Your task to perform on an android device: Go to calendar. Show me events next week Image 0: 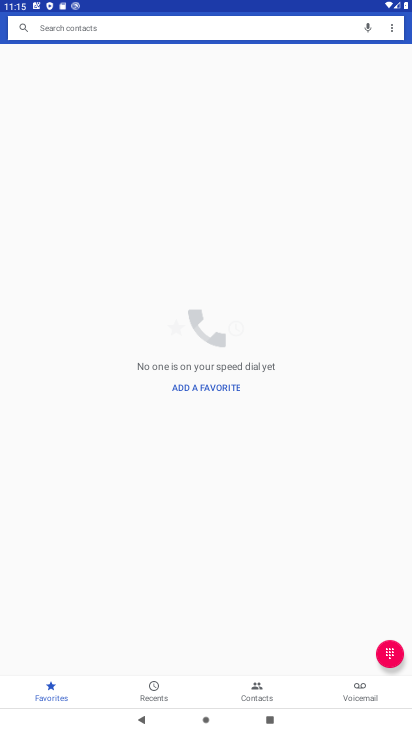
Step 0: press home button
Your task to perform on an android device: Go to calendar. Show me events next week Image 1: 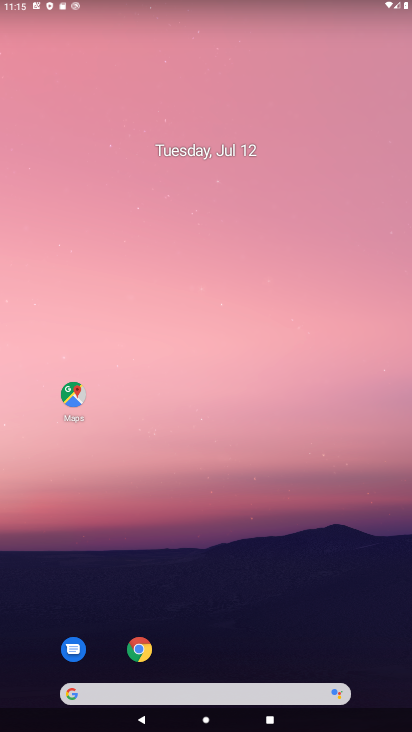
Step 1: drag from (309, 617) to (295, 118)
Your task to perform on an android device: Go to calendar. Show me events next week Image 2: 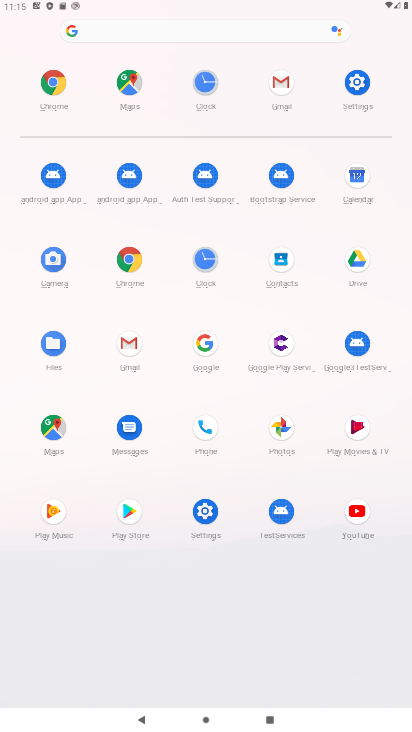
Step 2: click (356, 176)
Your task to perform on an android device: Go to calendar. Show me events next week Image 3: 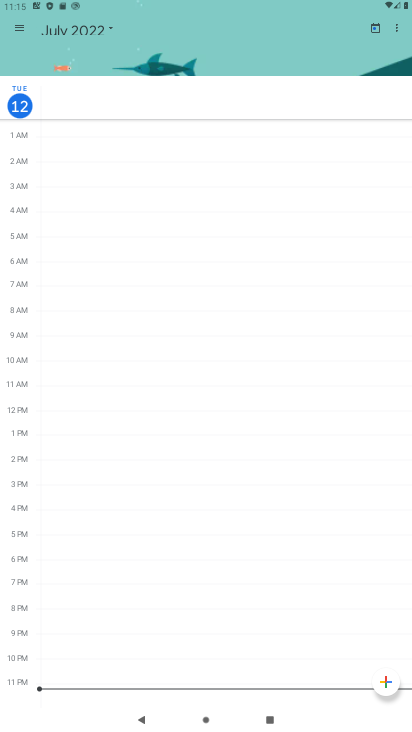
Step 3: click (17, 29)
Your task to perform on an android device: Go to calendar. Show me events next week Image 4: 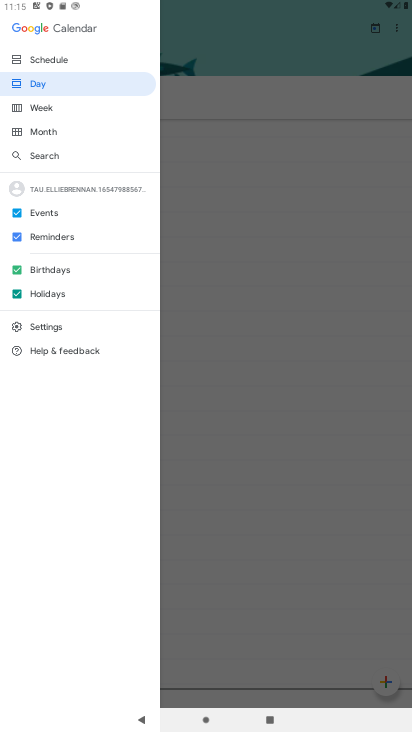
Step 4: click (32, 108)
Your task to perform on an android device: Go to calendar. Show me events next week Image 5: 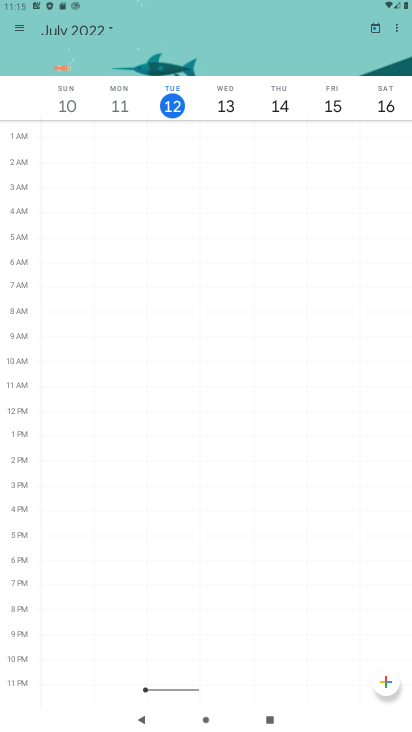
Step 5: click (104, 25)
Your task to perform on an android device: Go to calendar. Show me events next week Image 6: 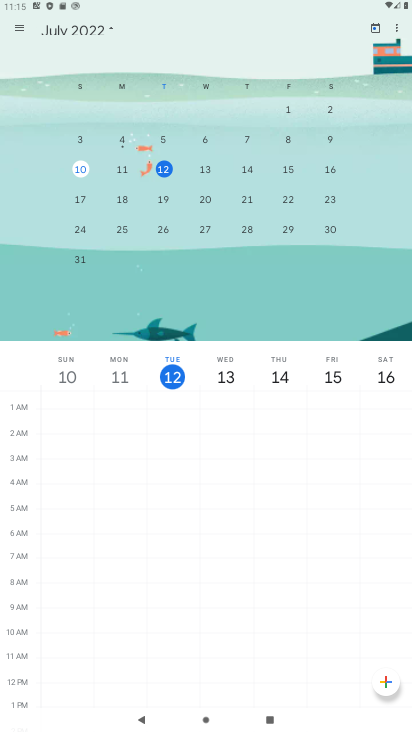
Step 6: drag from (336, 226) to (111, 198)
Your task to perform on an android device: Go to calendar. Show me events next week Image 7: 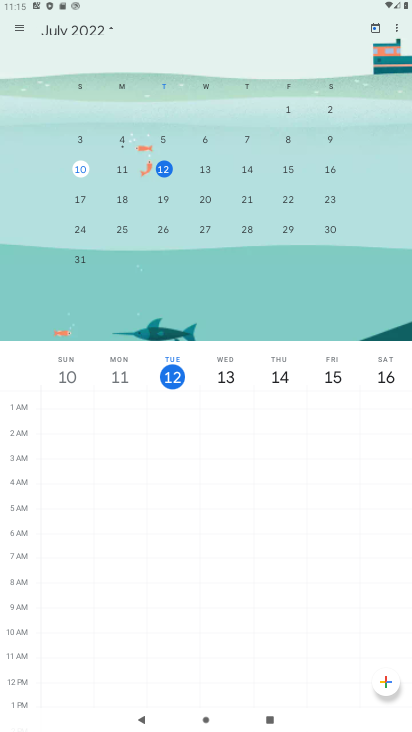
Step 7: drag from (111, 198) to (286, 221)
Your task to perform on an android device: Go to calendar. Show me events next week Image 8: 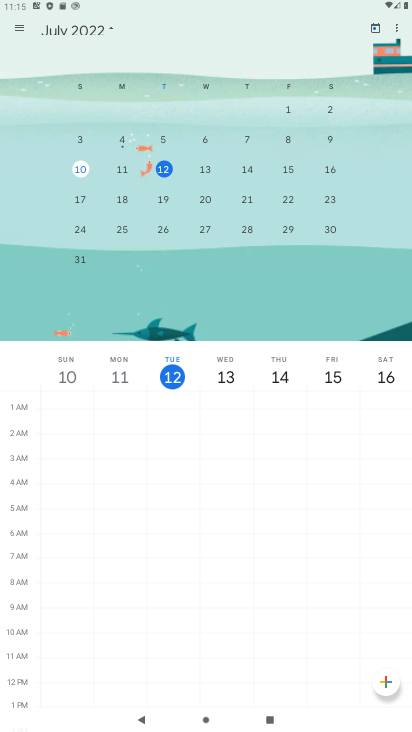
Step 8: click (73, 197)
Your task to perform on an android device: Go to calendar. Show me events next week Image 9: 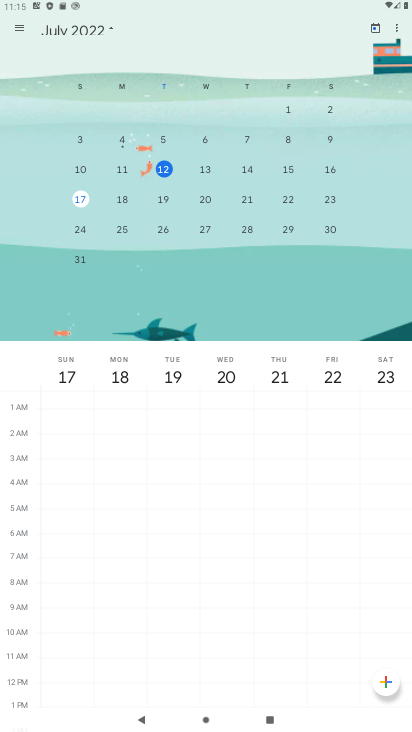
Step 9: task complete